Your task to perform on an android device: Open the web browser Image 0: 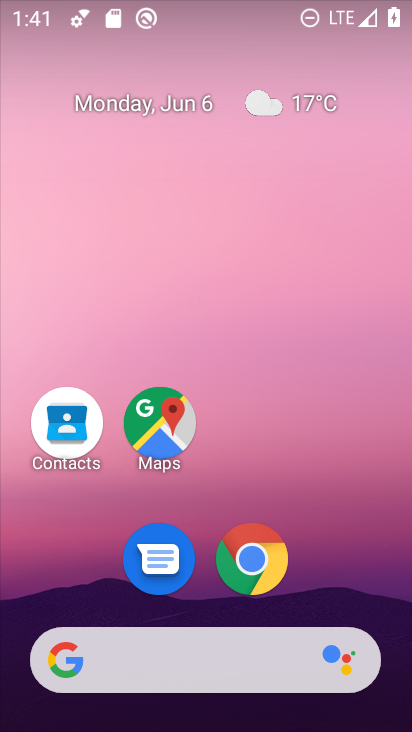
Step 0: drag from (230, 647) to (277, 115)
Your task to perform on an android device: Open the web browser Image 1: 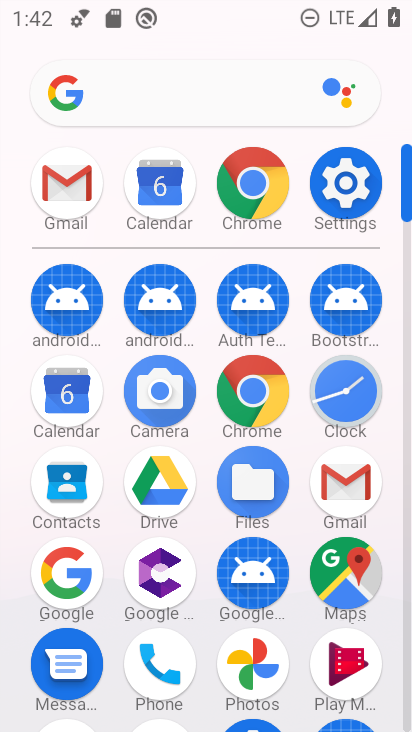
Step 1: click (269, 406)
Your task to perform on an android device: Open the web browser Image 2: 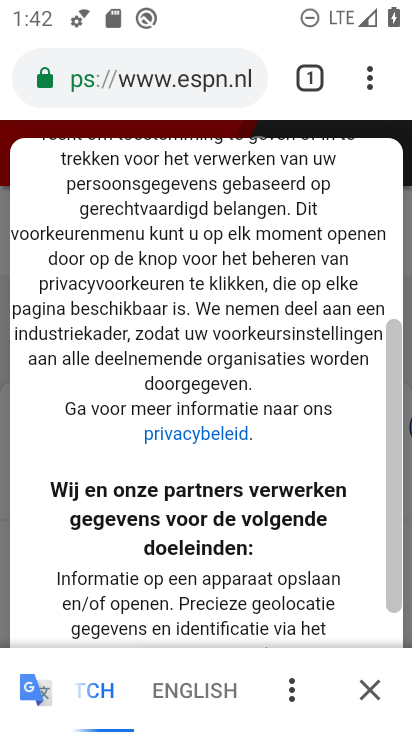
Step 2: task complete